Your task to perform on an android device: Open settings Image 0: 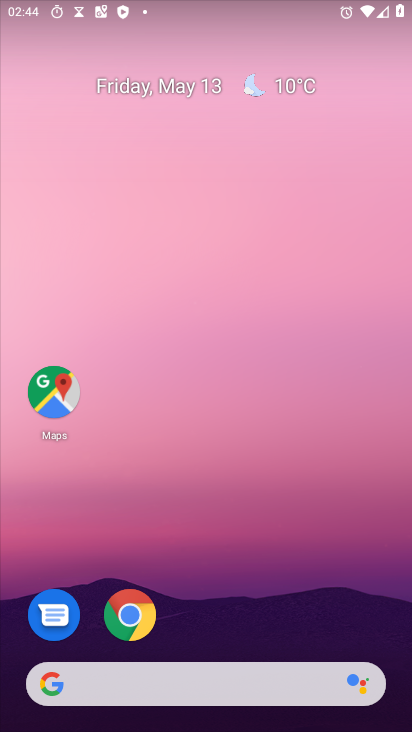
Step 0: drag from (163, 400) to (116, 117)
Your task to perform on an android device: Open settings Image 1: 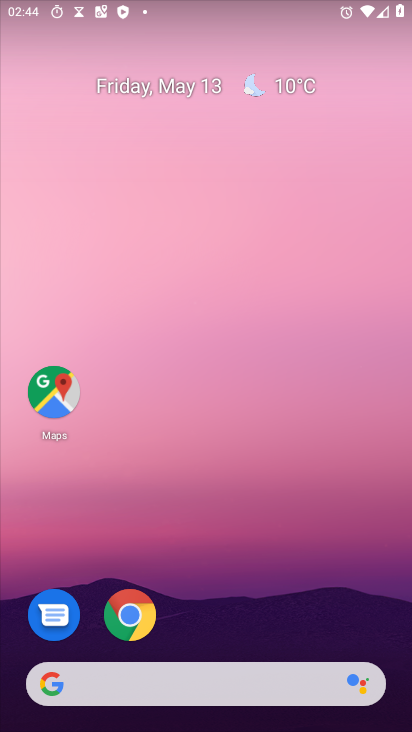
Step 1: drag from (207, 625) to (74, 52)
Your task to perform on an android device: Open settings Image 2: 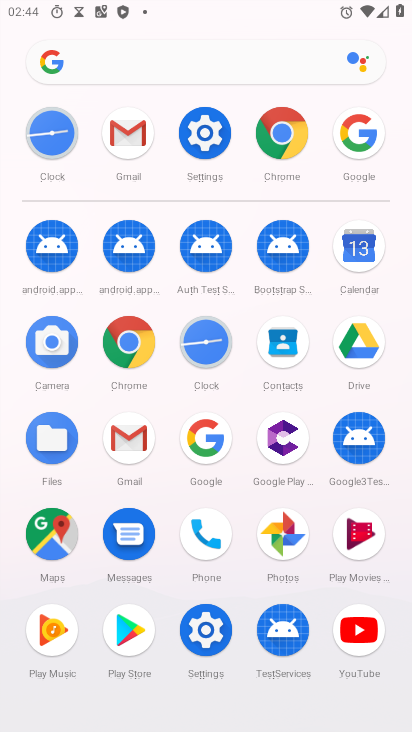
Step 2: click (199, 622)
Your task to perform on an android device: Open settings Image 3: 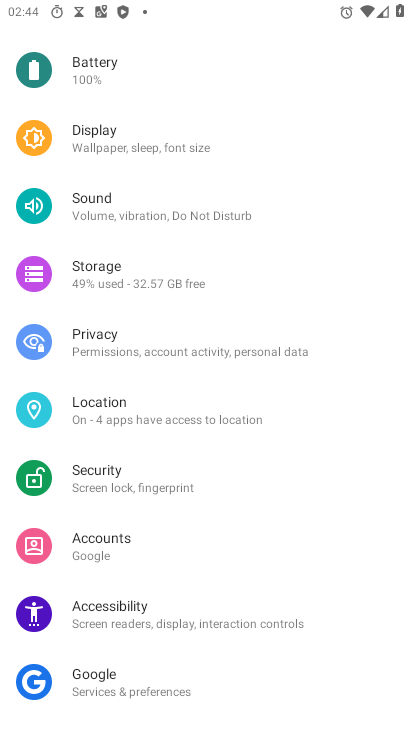
Step 3: task complete